Your task to perform on an android device: Open the web browser Image 0: 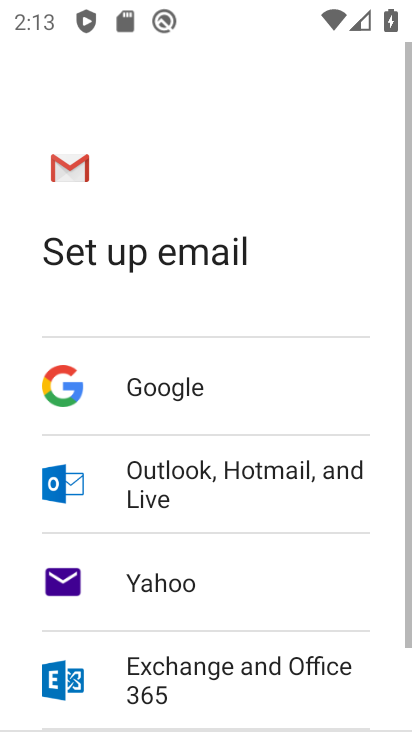
Step 0: press home button
Your task to perform on an android device: Open the web browser Image 1: 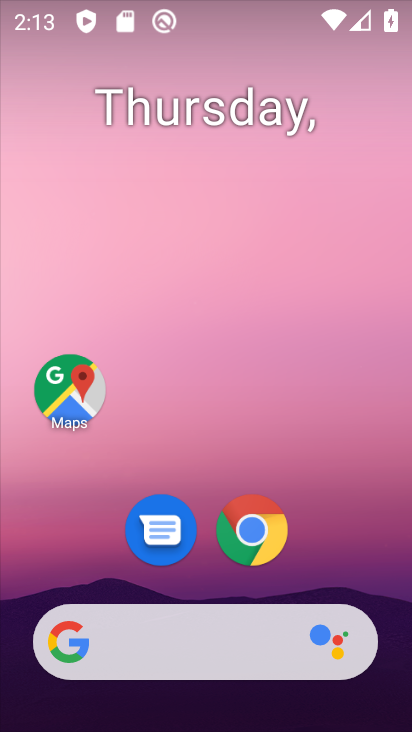
Step 1: click (261, 532)
Your task to perform on an android device: Open the web browser Image 2: 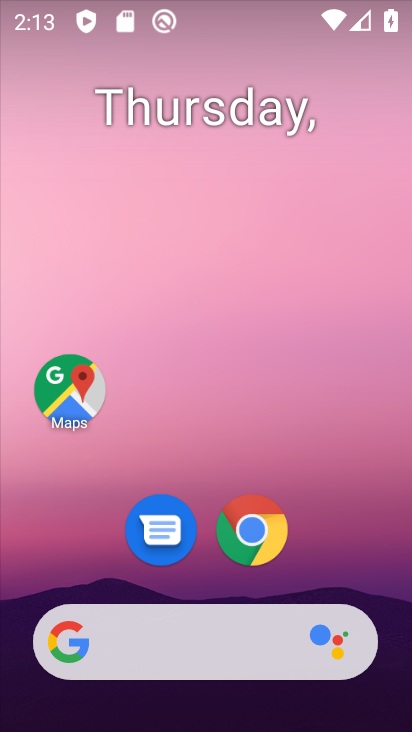
Step 2: click (261, 532)
Your task to perform on an android device: Open the web browser Image 3: 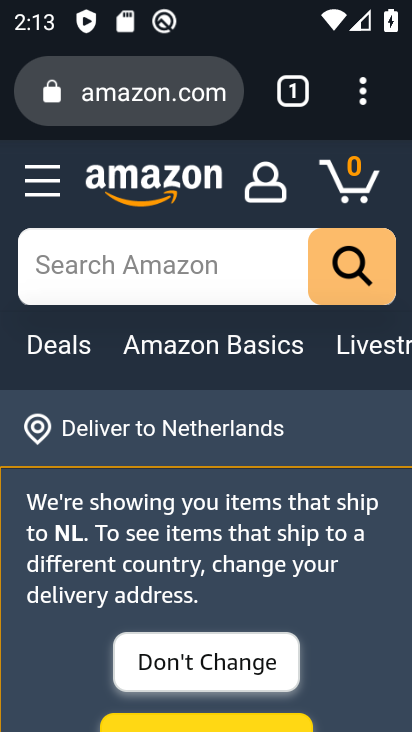
Step 3: click (368, 89)
Your task to perform on an android device: Open the web browser Image 4: 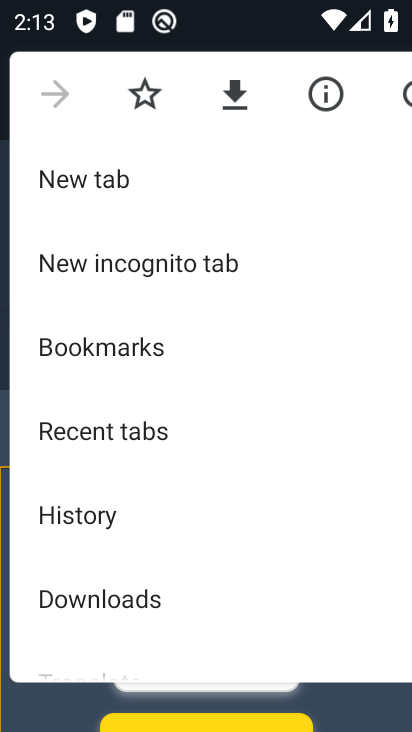
Step 4: task complete